Your task to perform on an android device: Open Android settings Image 0: 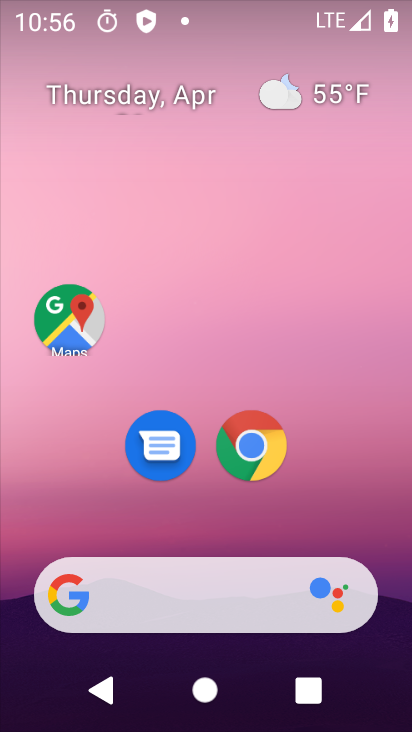
Step 0: drag from (381, 529) to (320, 18)
Your task to perform on an android device: Open Android settings Image 1: 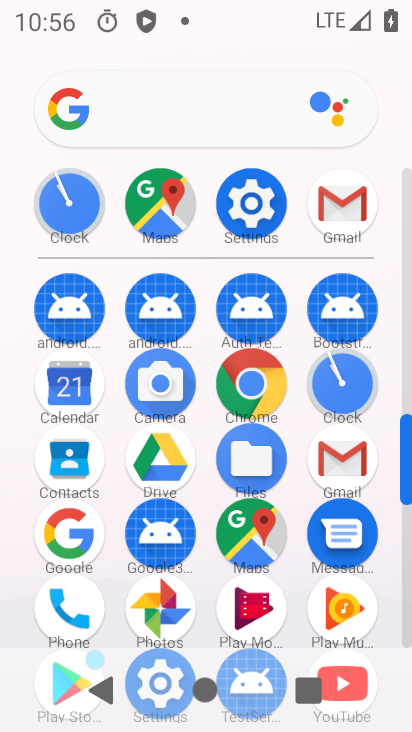
Step 1: click (250, 209)
Your task to perform on an android device: Open Android settings Image 2: 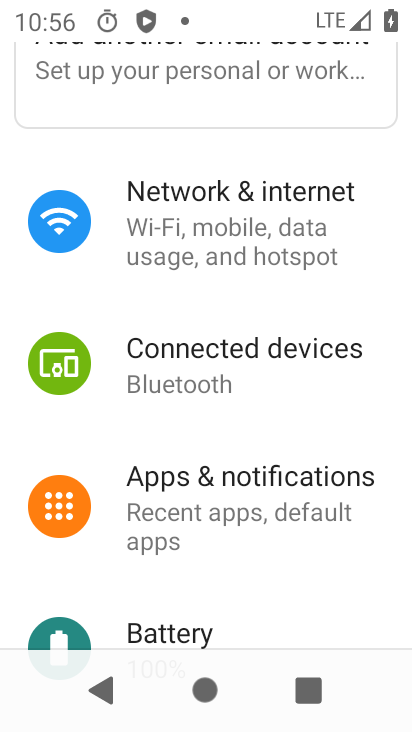
Step 2: task complete